Your task to perform on an android device: toggle show notifications on the lock screen Image 0: 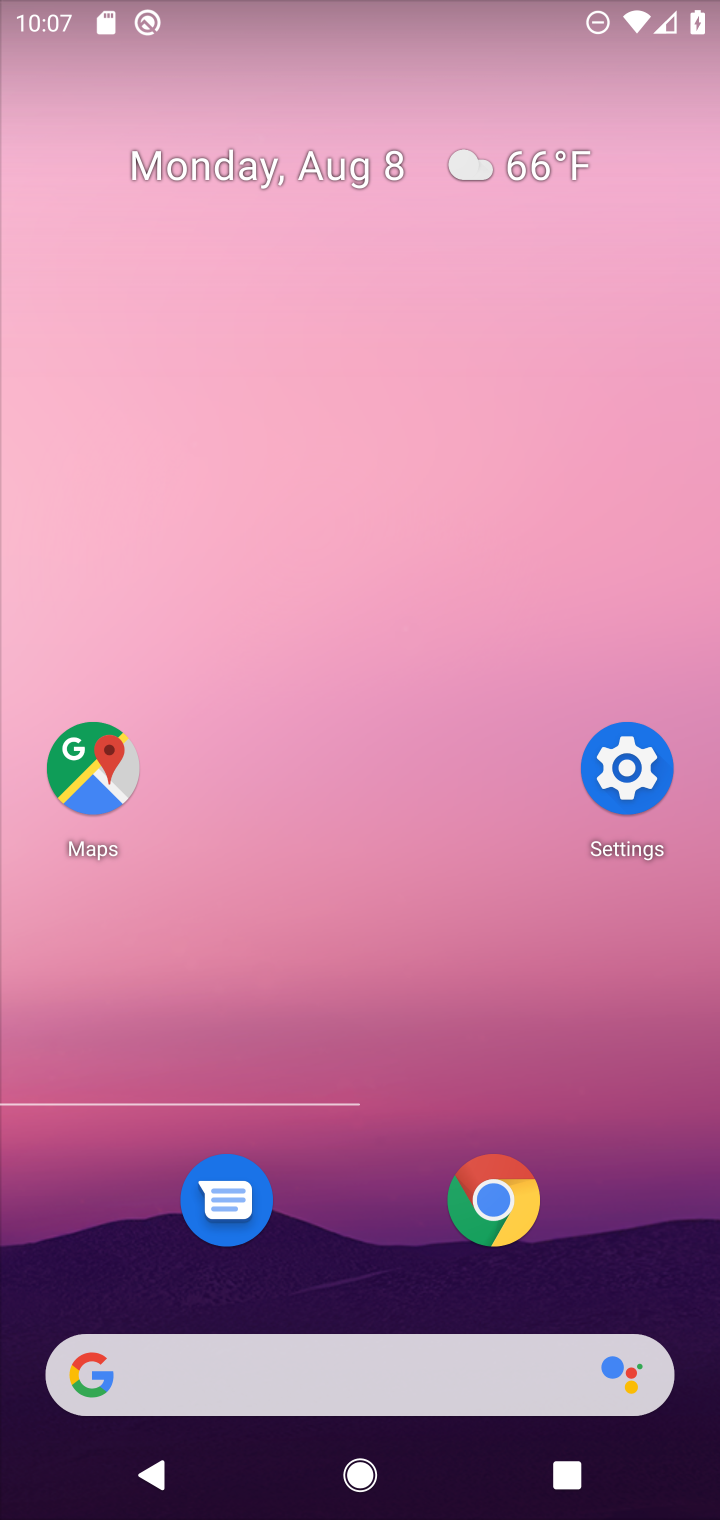
Step 0: press home button
Your task to perform on an android device: toggle show notifications on the lock screen Image 1: 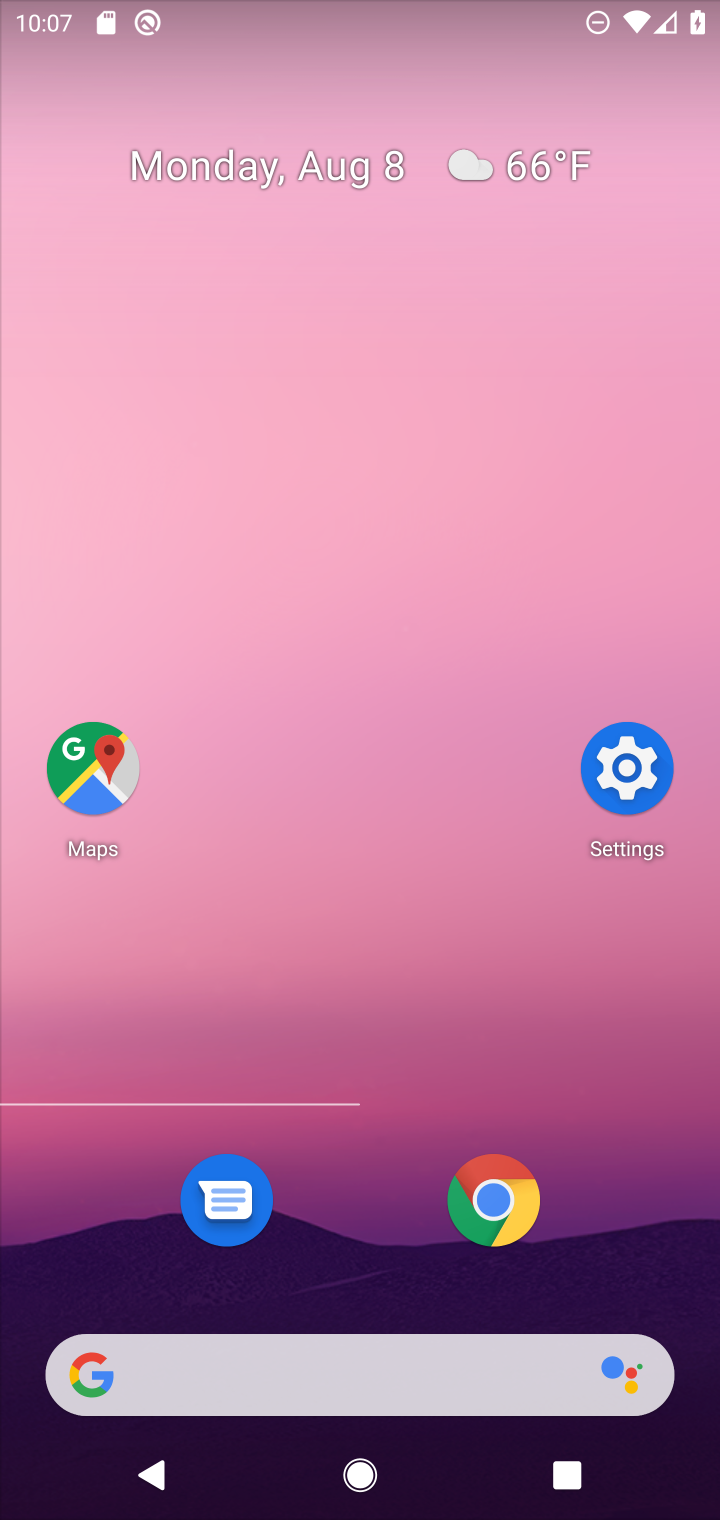
Step 1: click (629, 775)
Your task to perform on an android device: toggle show notifications on the lock screen Image 2: 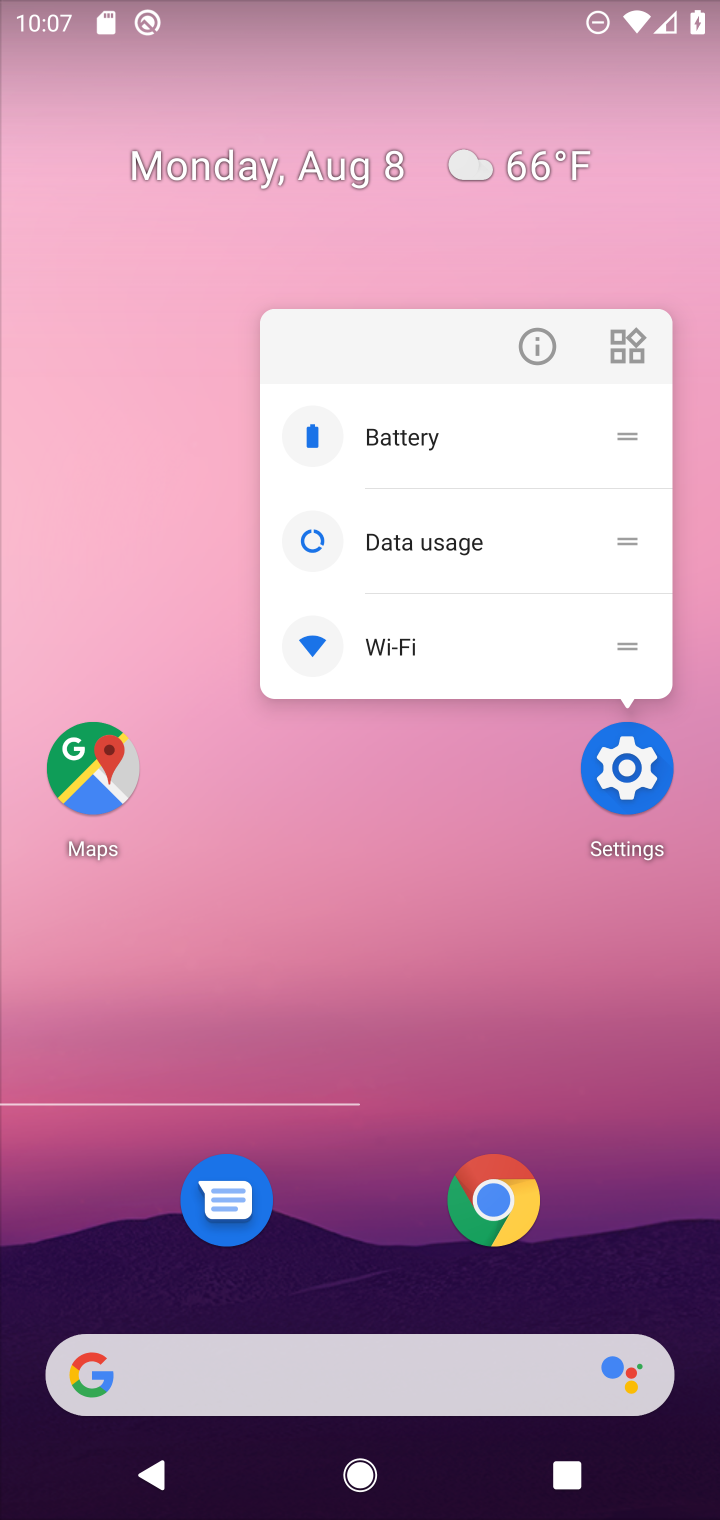
Step 2: click (623, 759)
Your task to perform on an android device: toggle show notifications on the lock screen Image 3: 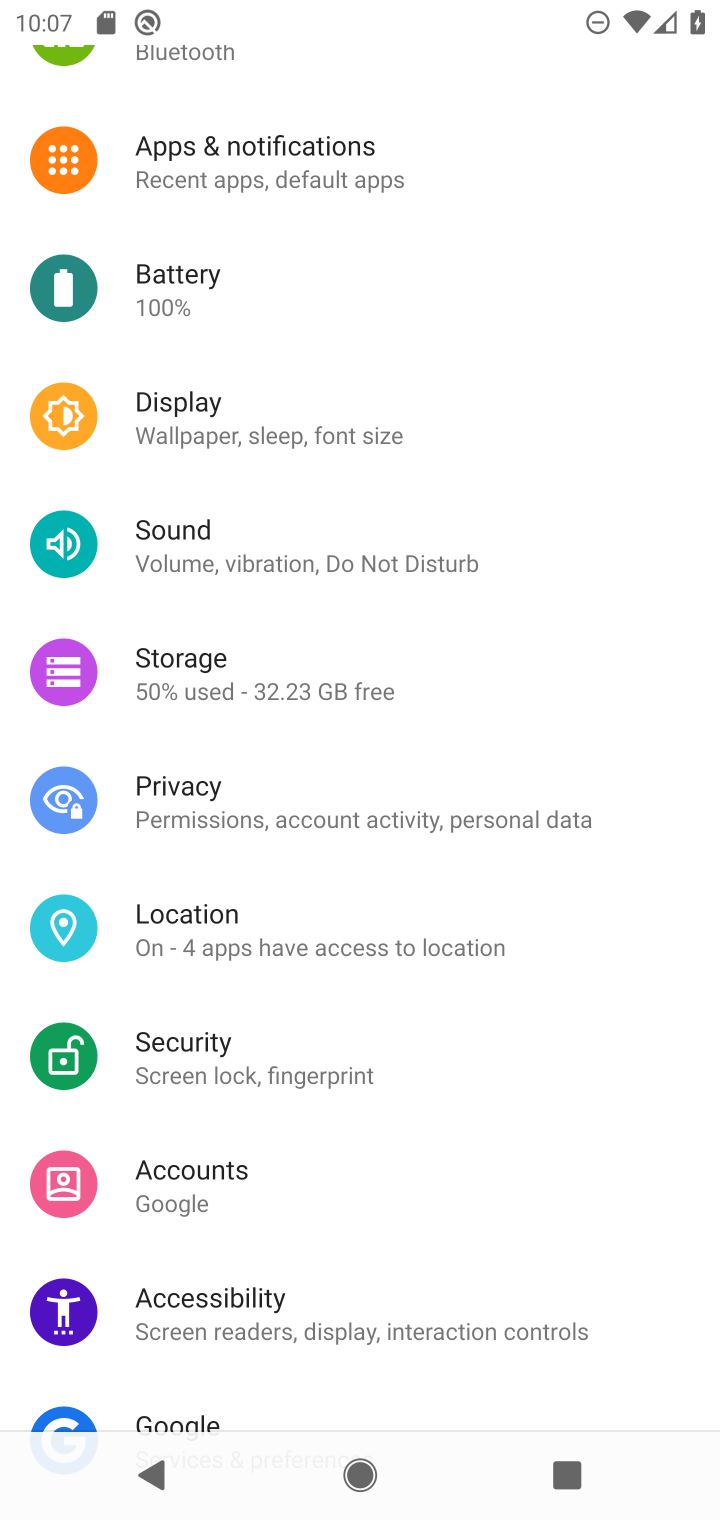
Step 3: click (315, 155)
Your task to perform on an android device: toggle show notifications on the lock screen Image 4: 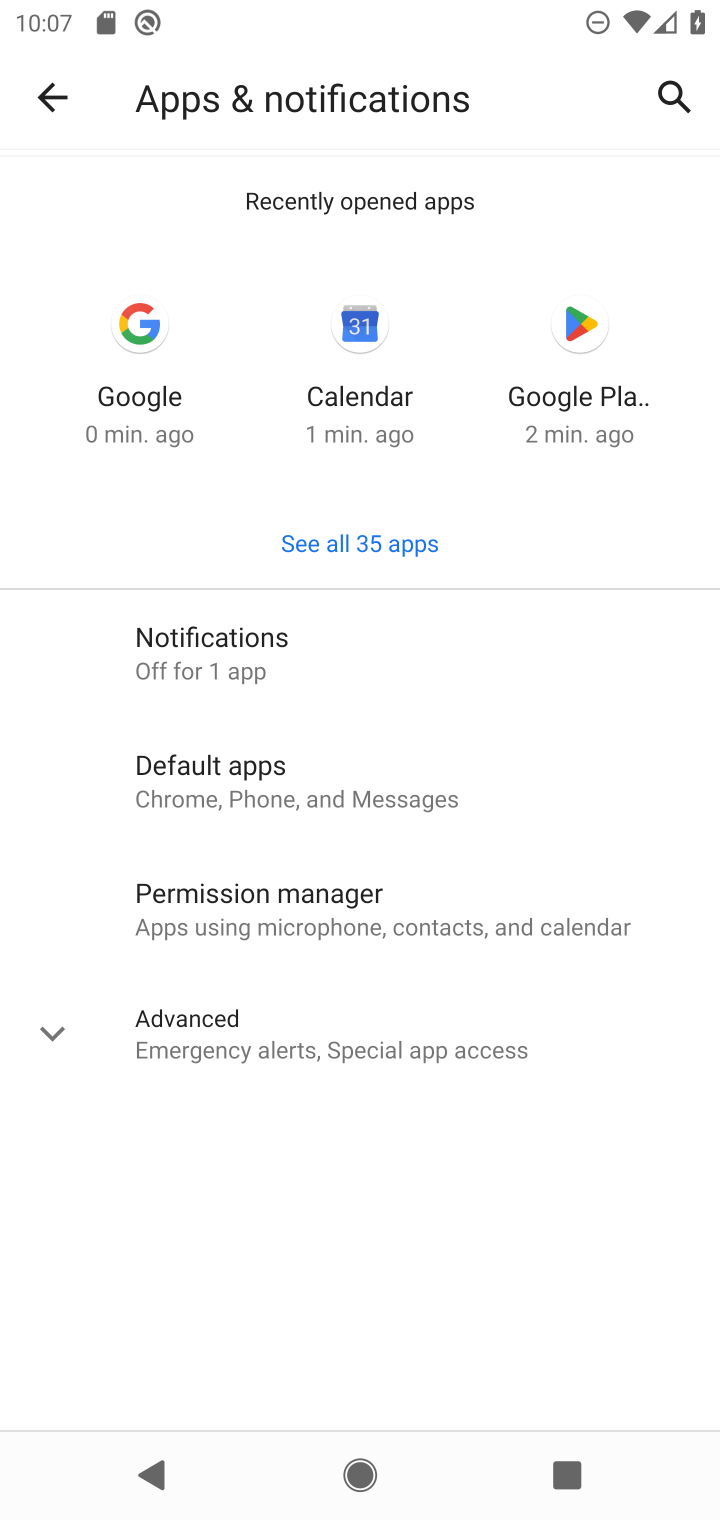
Step 4: click (223, 645)
Your task to perform on an android device: toggle show notifications on the lock screen Image 5: 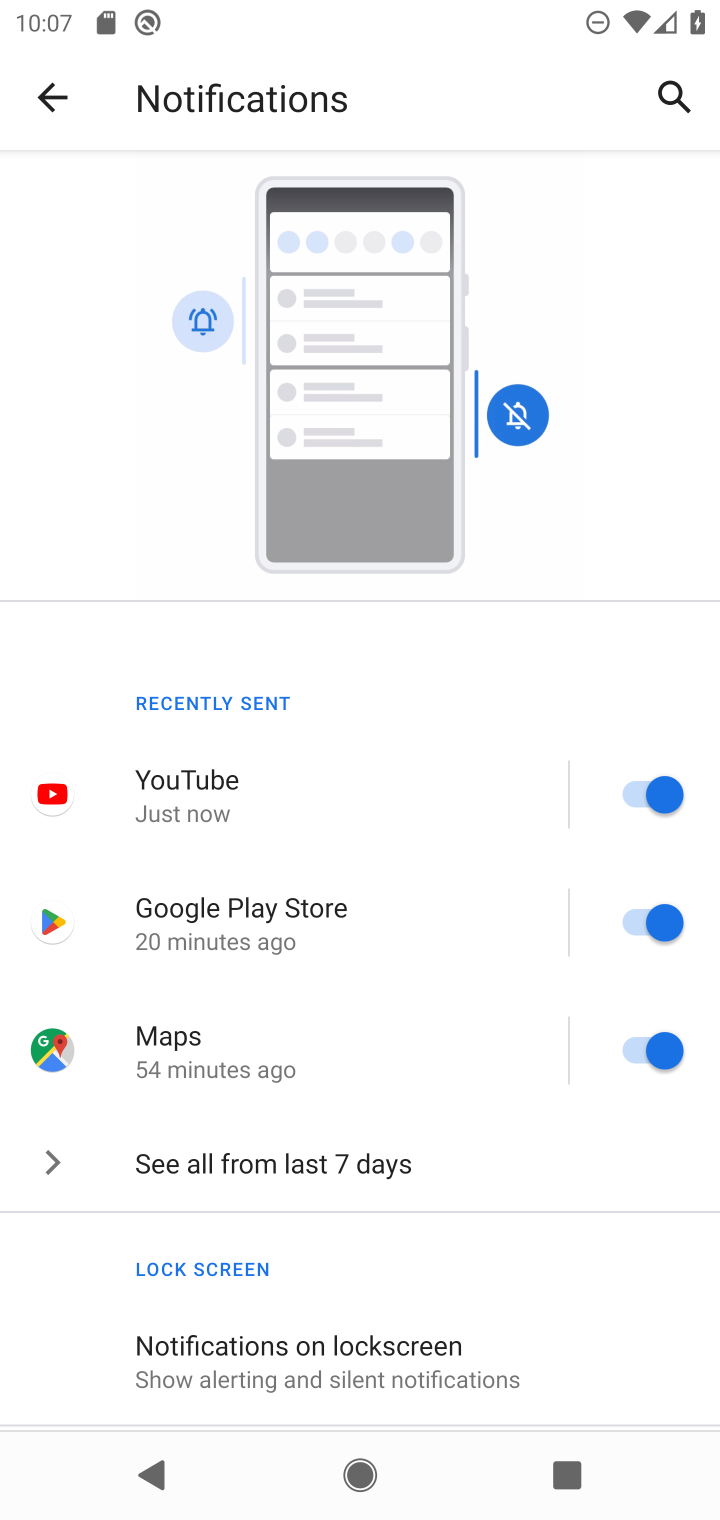
Step 5: drag from (414, 1276) to (545, 539)
Your task to perform on an android device: toggle show notifications on the lock screen Image 6: 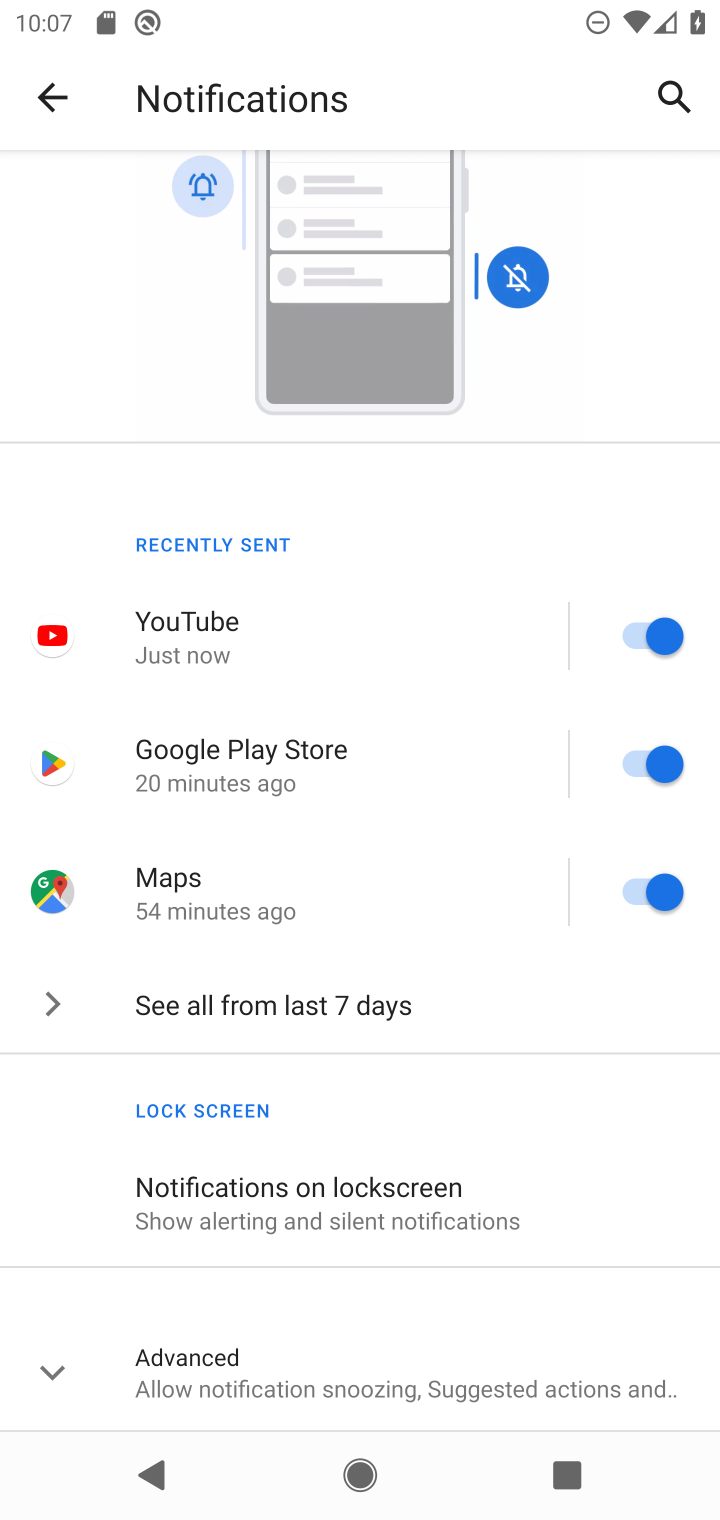
Step 6: click (284, 1202)
Your task to perform on an android device: toggle show notifications on the lock screen Image 7: 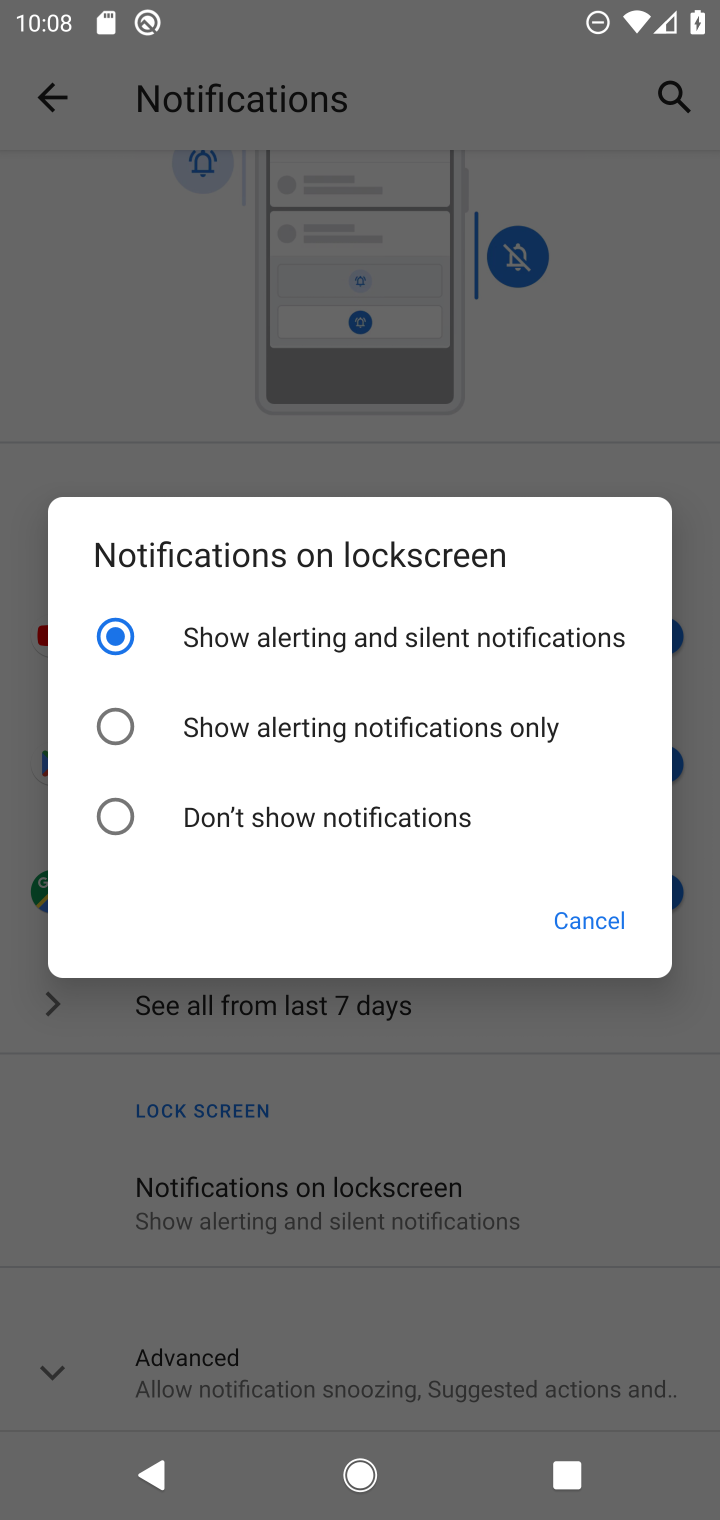
Step 7: click (117, 810)
Your task to perform on an android device: toggle show notifications on the lock screen Image 8: 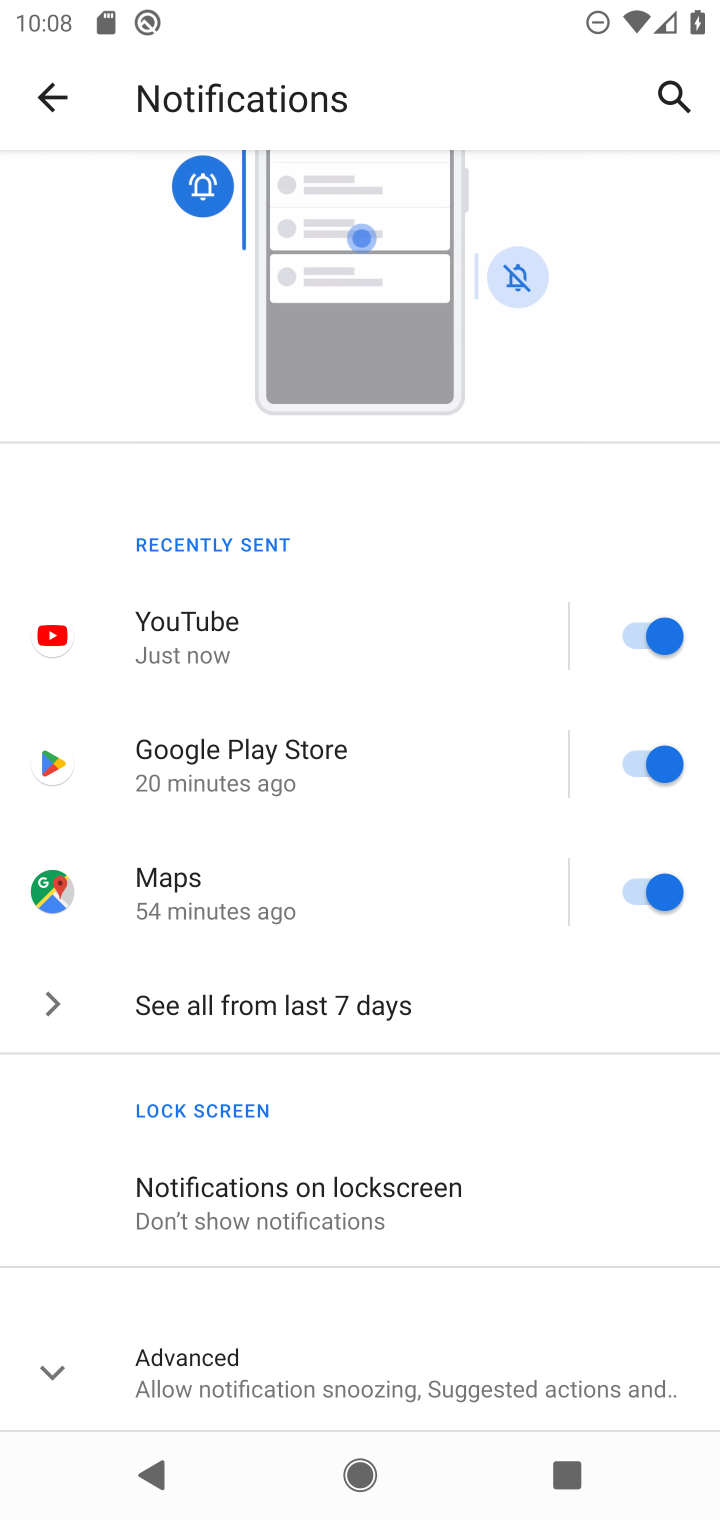
Step 8: task complete